Your task to perform on an android device: Go to Amazon Image 0: 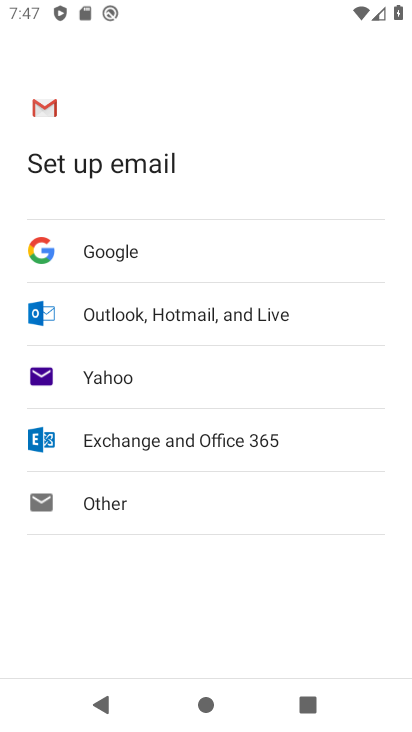
Step 0: press home button
Your task to perform on an android device: Go to Amazon Image 1: 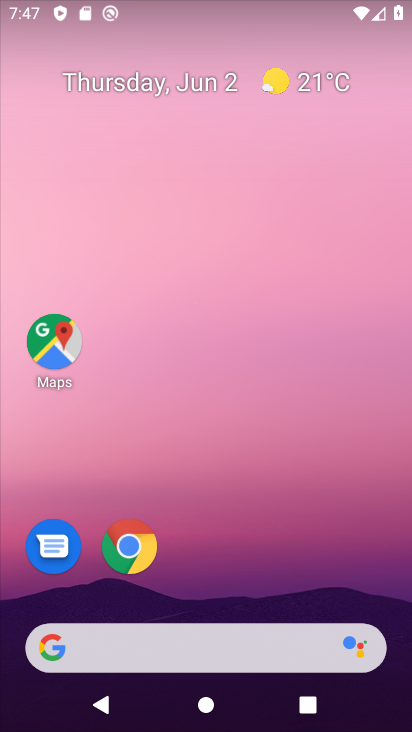
Step 1: click (138, 536)
Your task to perform on an android device: Go to Amazon Image 2: 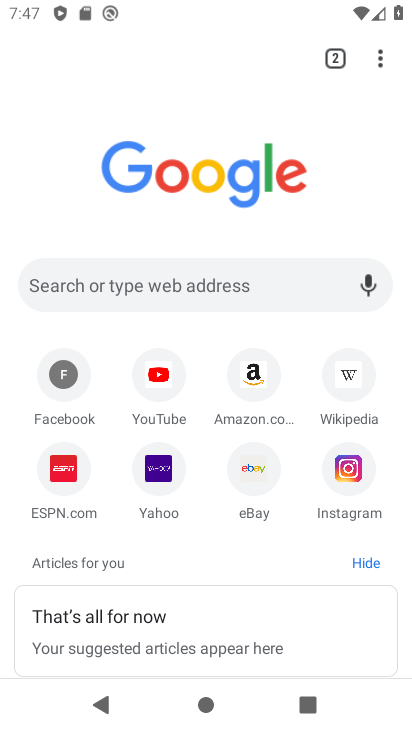
Step 2: click (248, 368)
Your task to perform on an android device: Go to Amazon Image 3: 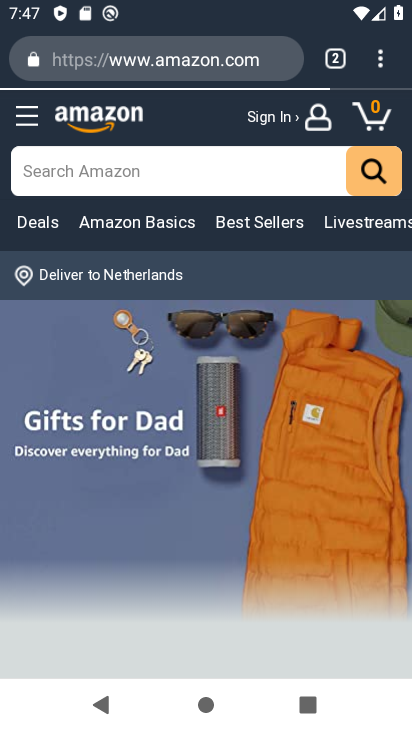
Step 3: task complete